Your task to perform on an android device: Search for "macbook" on ebay.com, select the first entry, add it to the cart, then select checkout. Image 0: 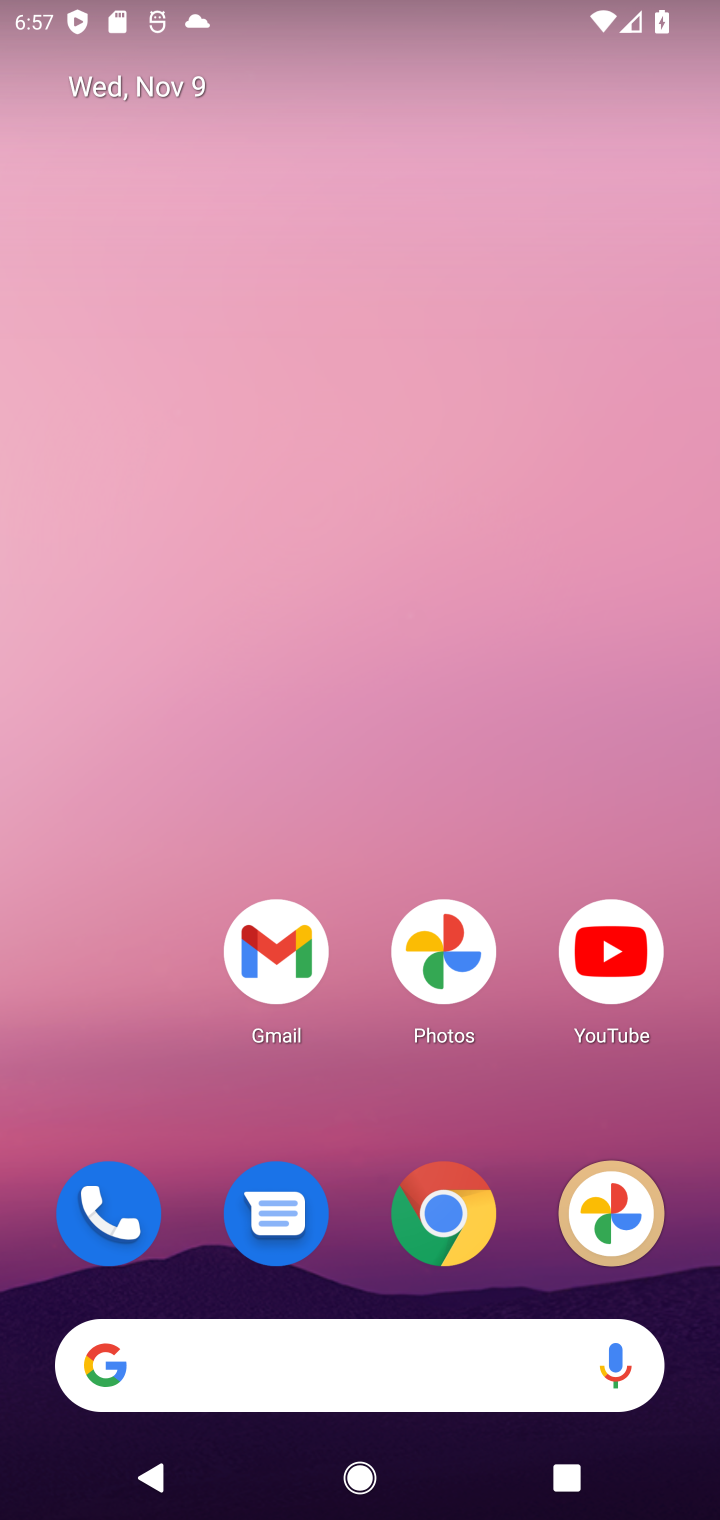
Step 0: click (450, 1225)
Your task to perform on an android device: Search for "macbook" on ebay.com, select the first entry, add it to the cart, then select checkout. Image 1: 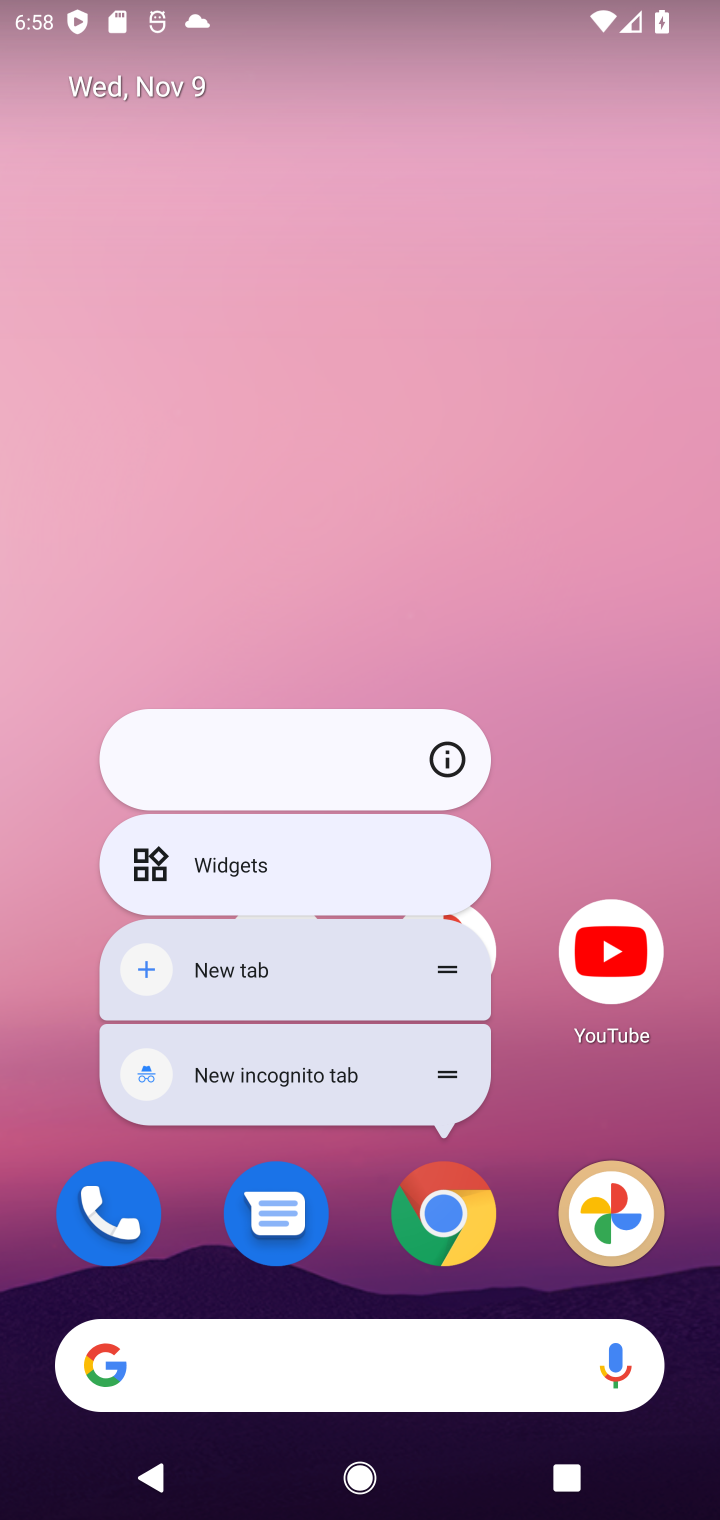
Step 1: click (452, 1225)
Your task to perform on an android device: Search for "macbook" on ebay.com, select the first entry, add it to the cart, then select checkout. Image 2: 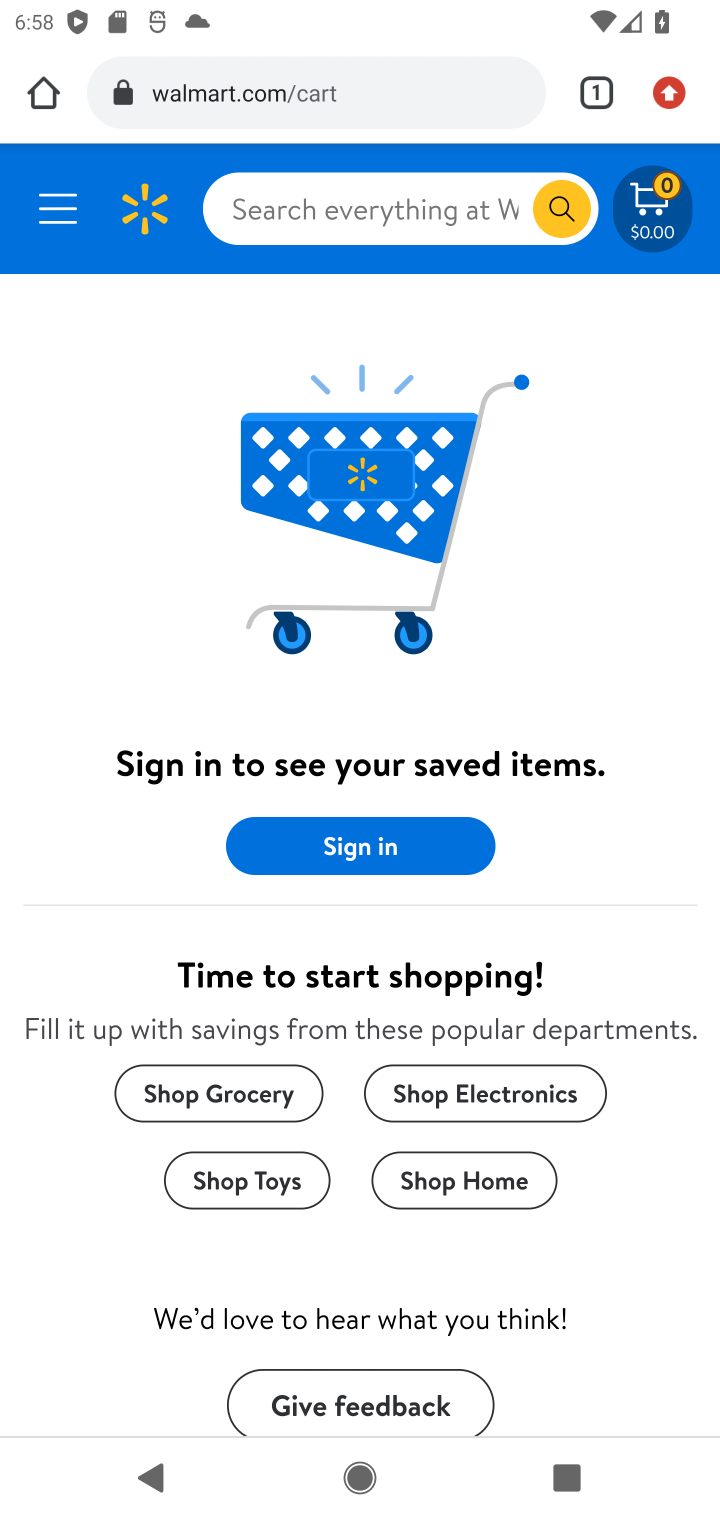
Step 2: click (287, 98)
Your task to perform on an android device: Search for "macbook" on ebay.com, select the first entry, add it to the cart, then select checkout. Image 3: 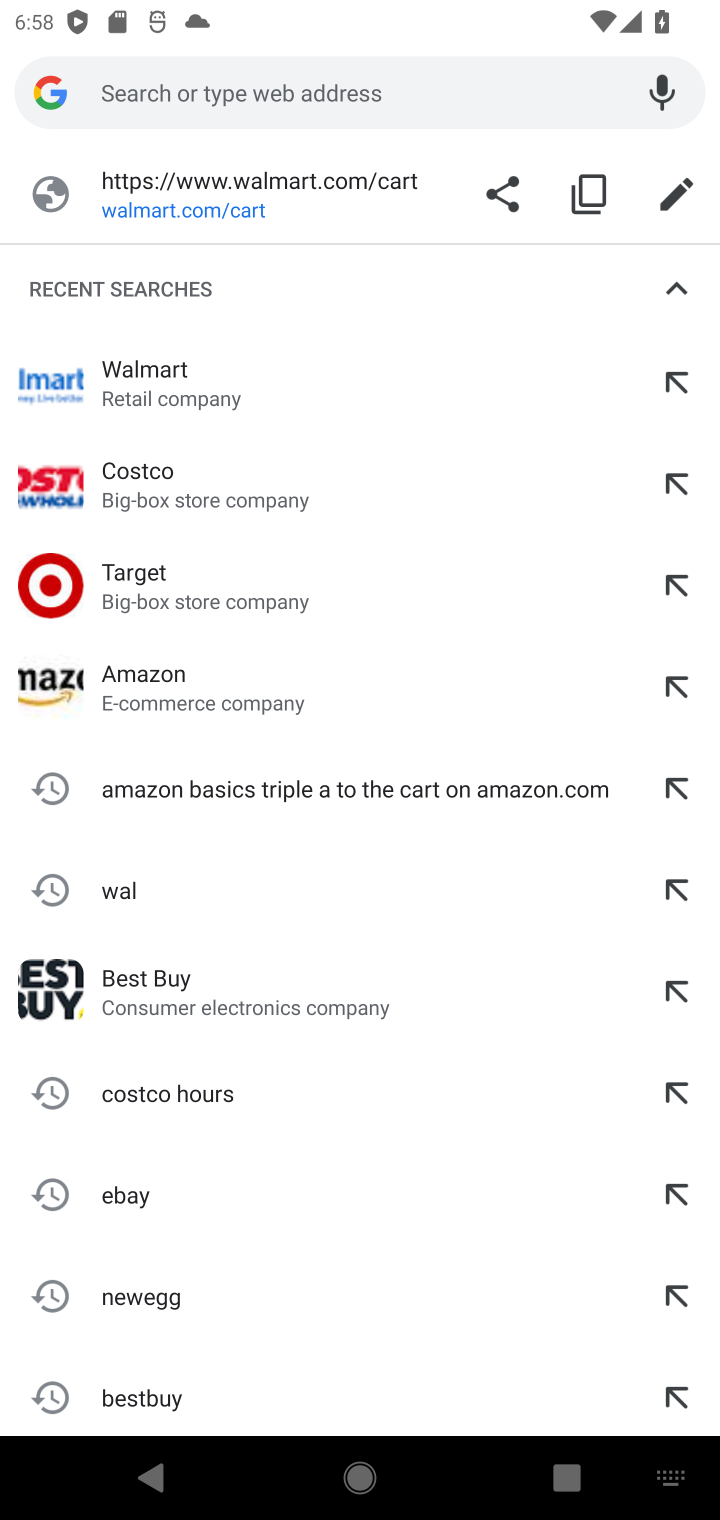
Step 3: type "ebay"
Your task to perform on an android device: Search for "macbook" on ebay.com, select the first entry, add it to the cart, then select checkout. Image 4: 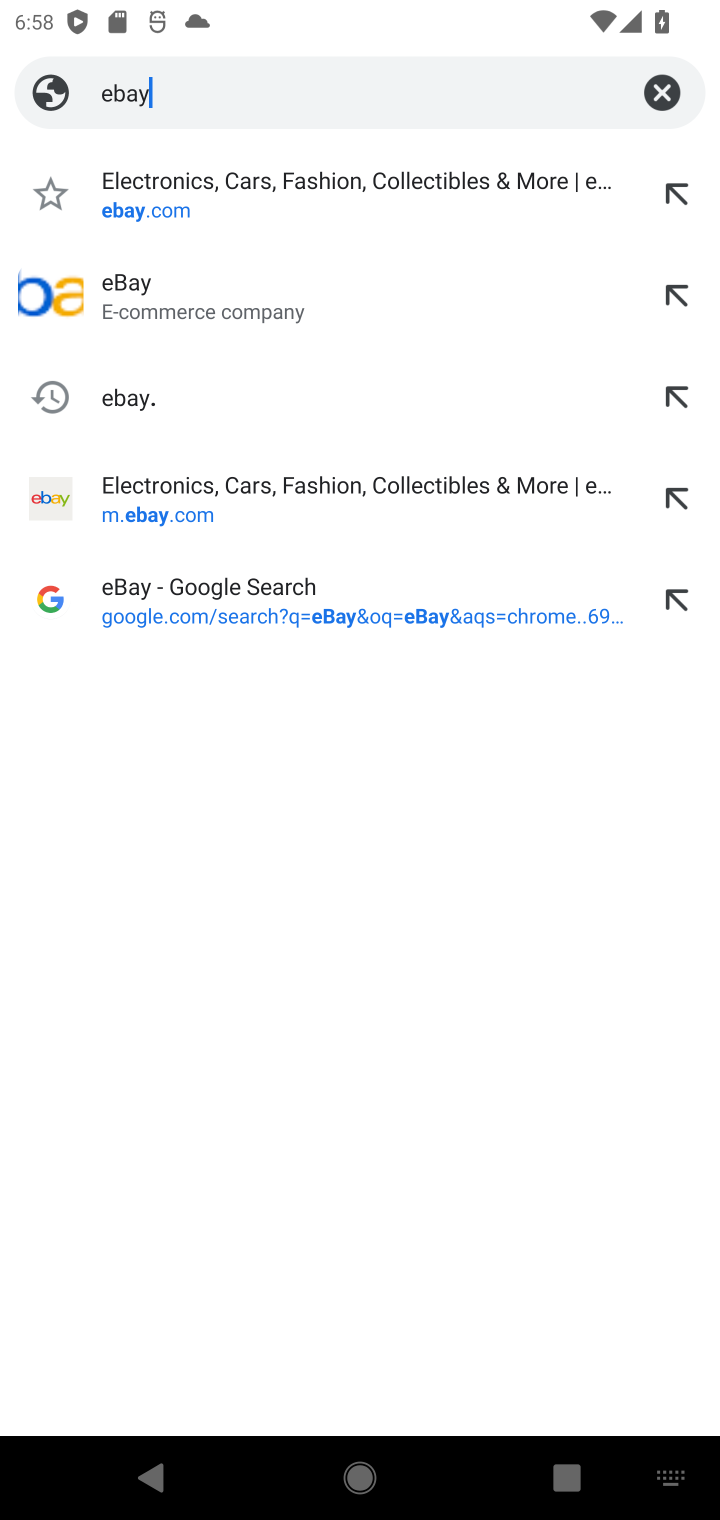
Step 4: click (127, 306)
Your task to perform on an android device: Search for "macbook" on ebay.com, select the first entry, add it to the cart, then select checkout. Image 5: 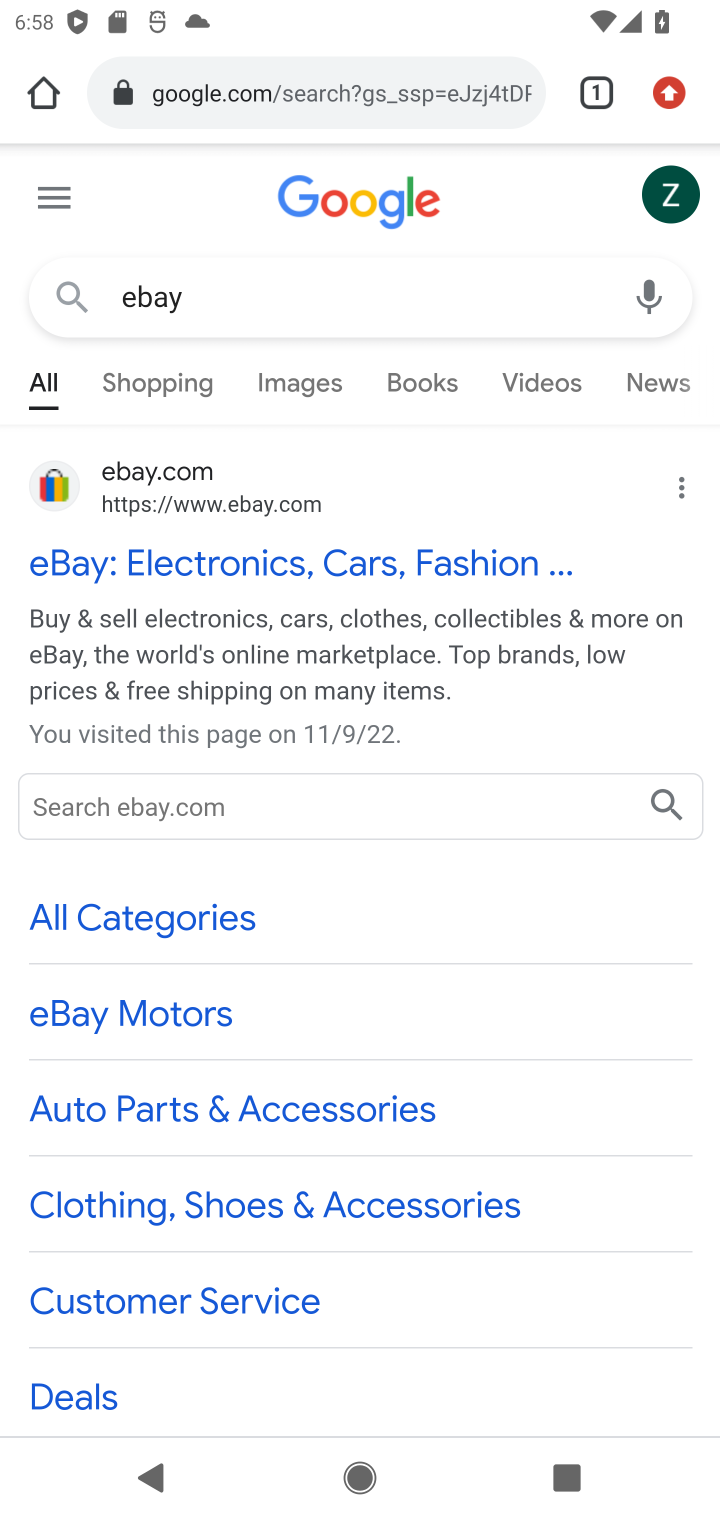
Step 5: click (202, 566)
Your task to perform on an android device: Search for "macbook" on ebay.com, select the first entry, add it to the cart, then select checkout. Image 6: 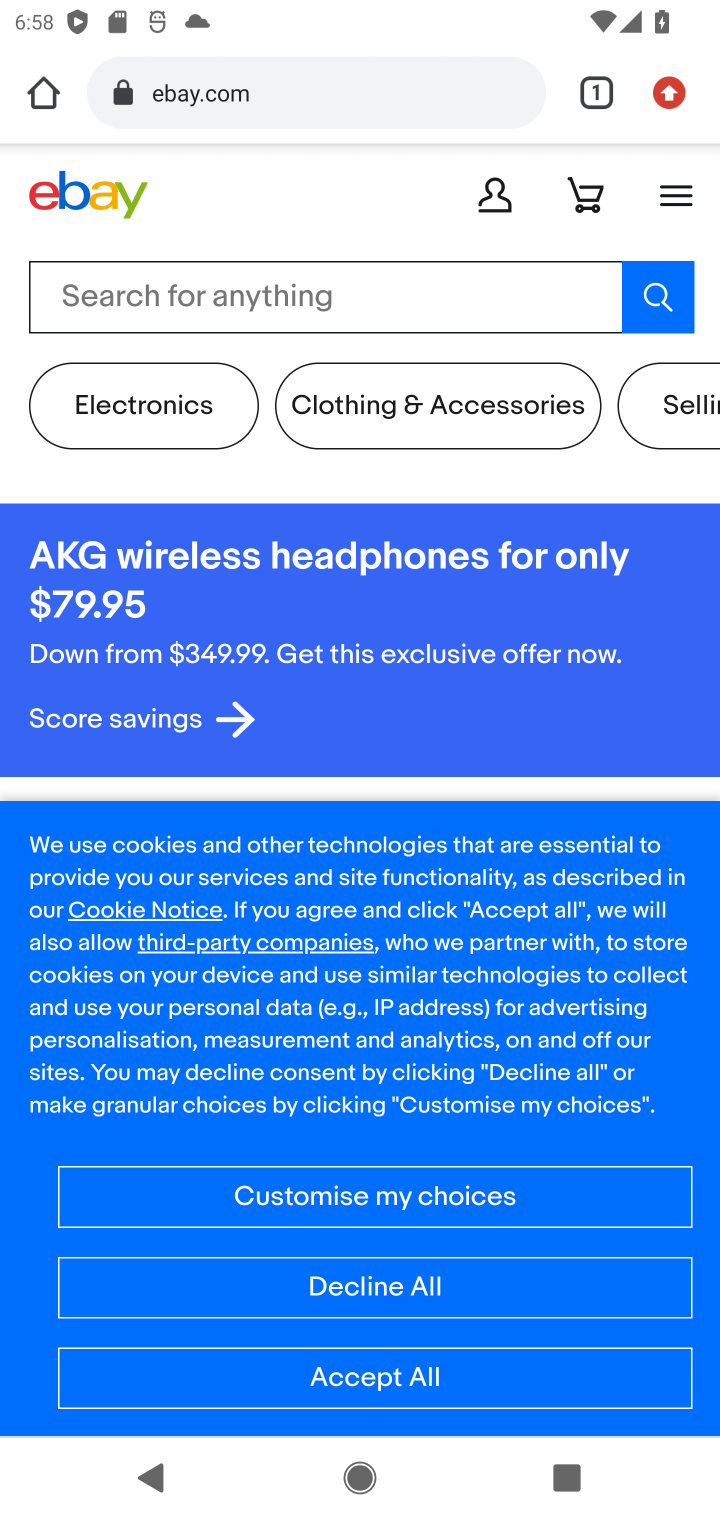
Step 6: click (234, 295)
Your task to perform on an android device: Search for "macbook" on ebay.com, select the first entry, add it to the cart, then select checkout. Image 7: 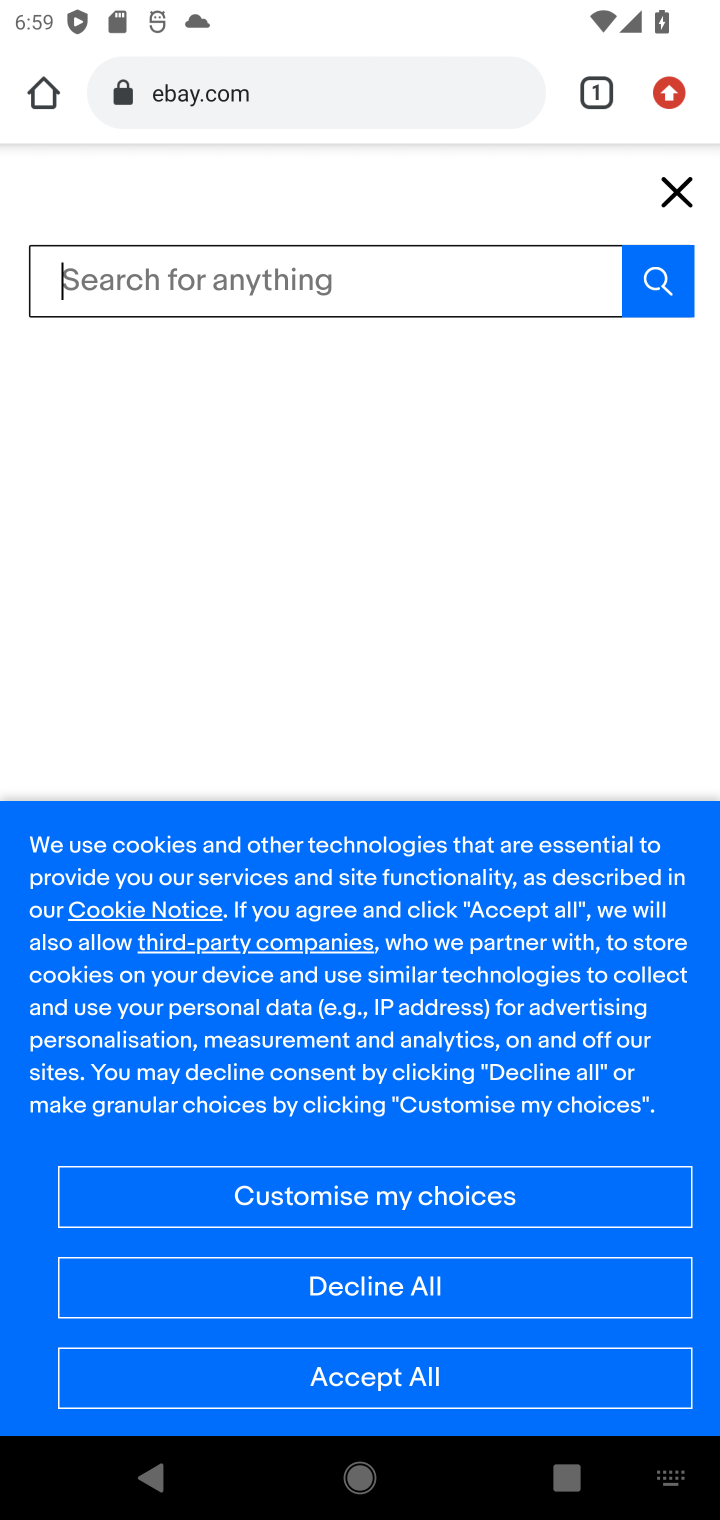
Step 7: type "macbook"
Your task to perform on an android device: Search for "macbook" on ebay.com, select the first entry, add it to the cart, then select checkout. Image 8: 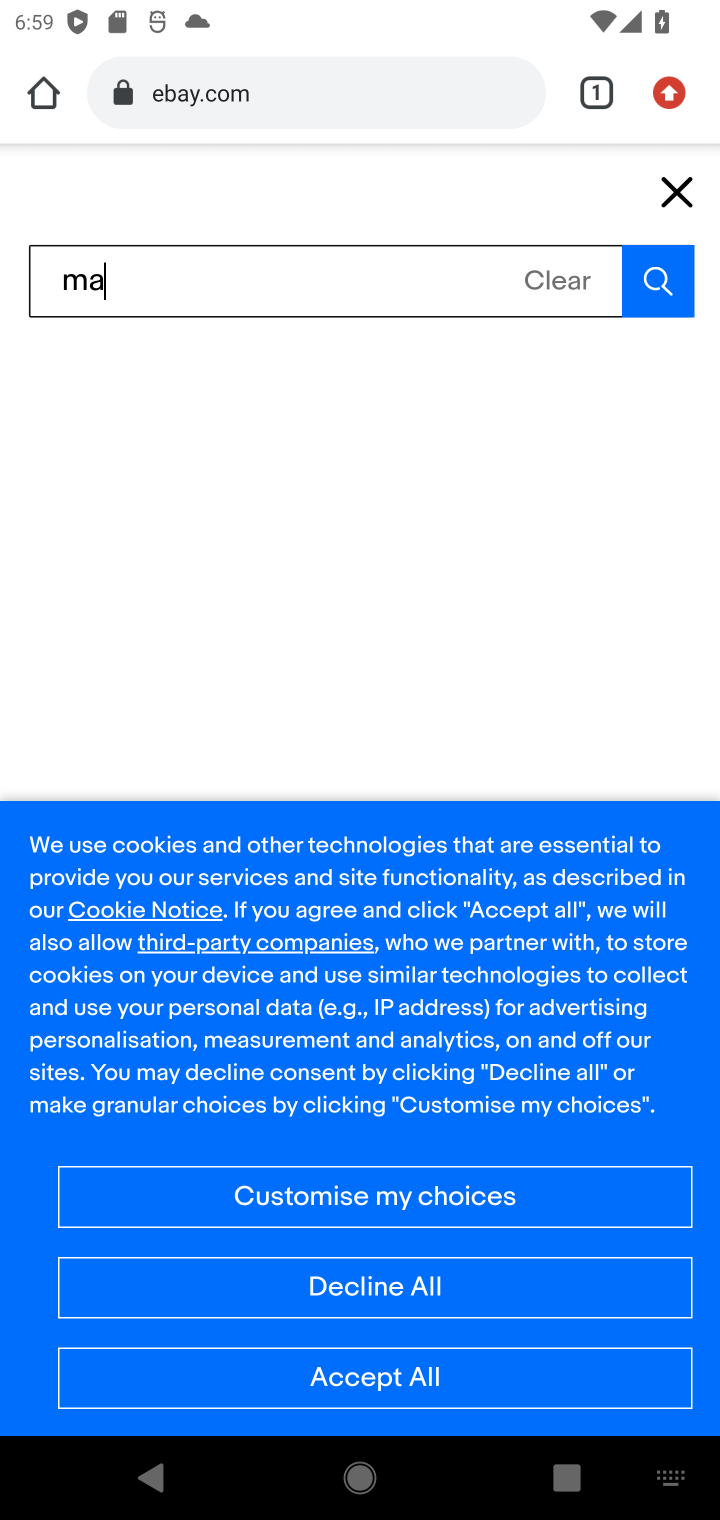
Step 8: type ""
Your task to perform on an android device: Search for "macbook" on ebay.com, select the first entry, add it to the cart, then select checkout. Image 9: 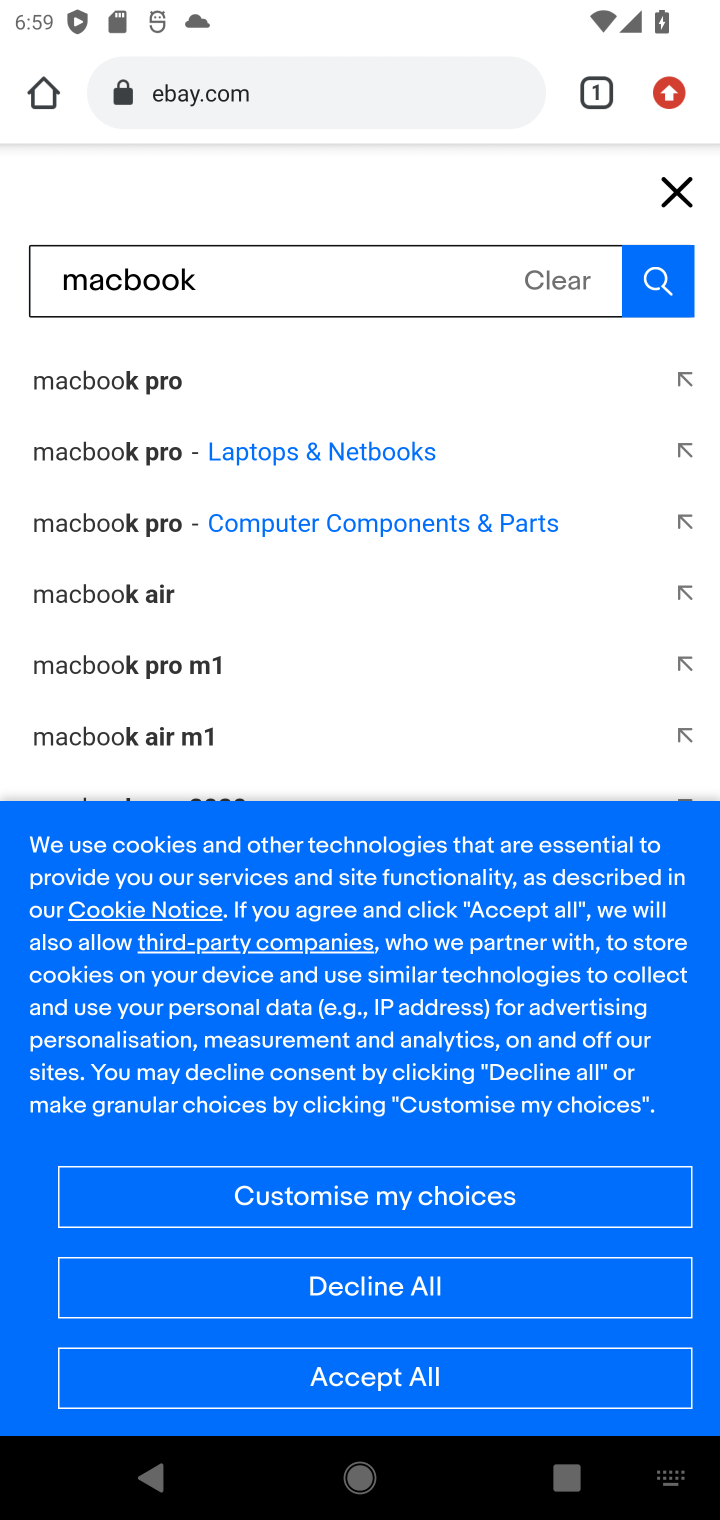
Step 9: click (351, 1286)
Your task to perform on an android device: Search for "macbook" on ebay.com, select the first entry, add it to the cart, then select checkout. Image 10: 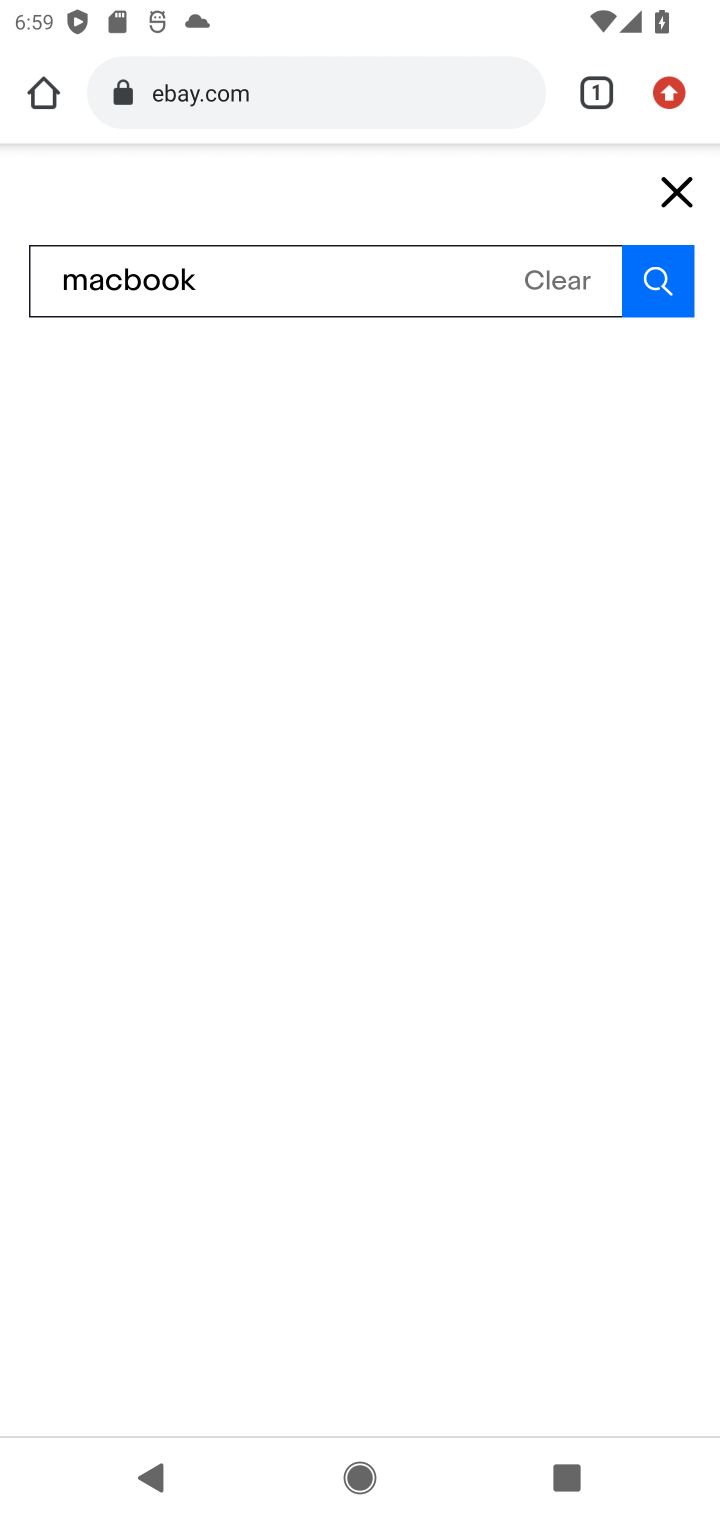
Step 10: click (648, 258)
Your task to perform on an android device: Search for "macbook" on ebay.com, select the first entry, add it to the cart, then select checkout. Image 11: 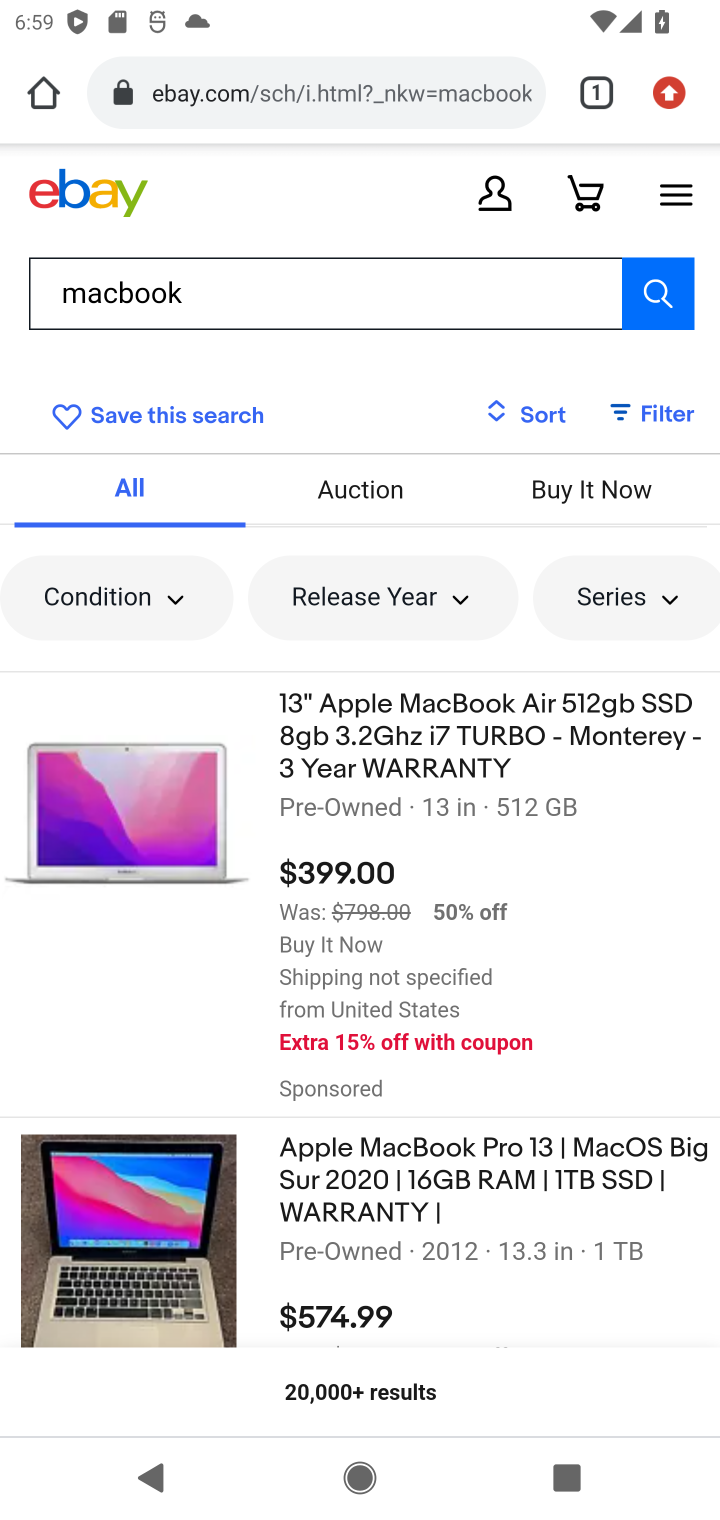
Step 11: click (431, 1158)
Your task to perform on an android device: Search for "macbook" on ebay.com, select the first entry, add it to the cart, then select checkout. Image 12: 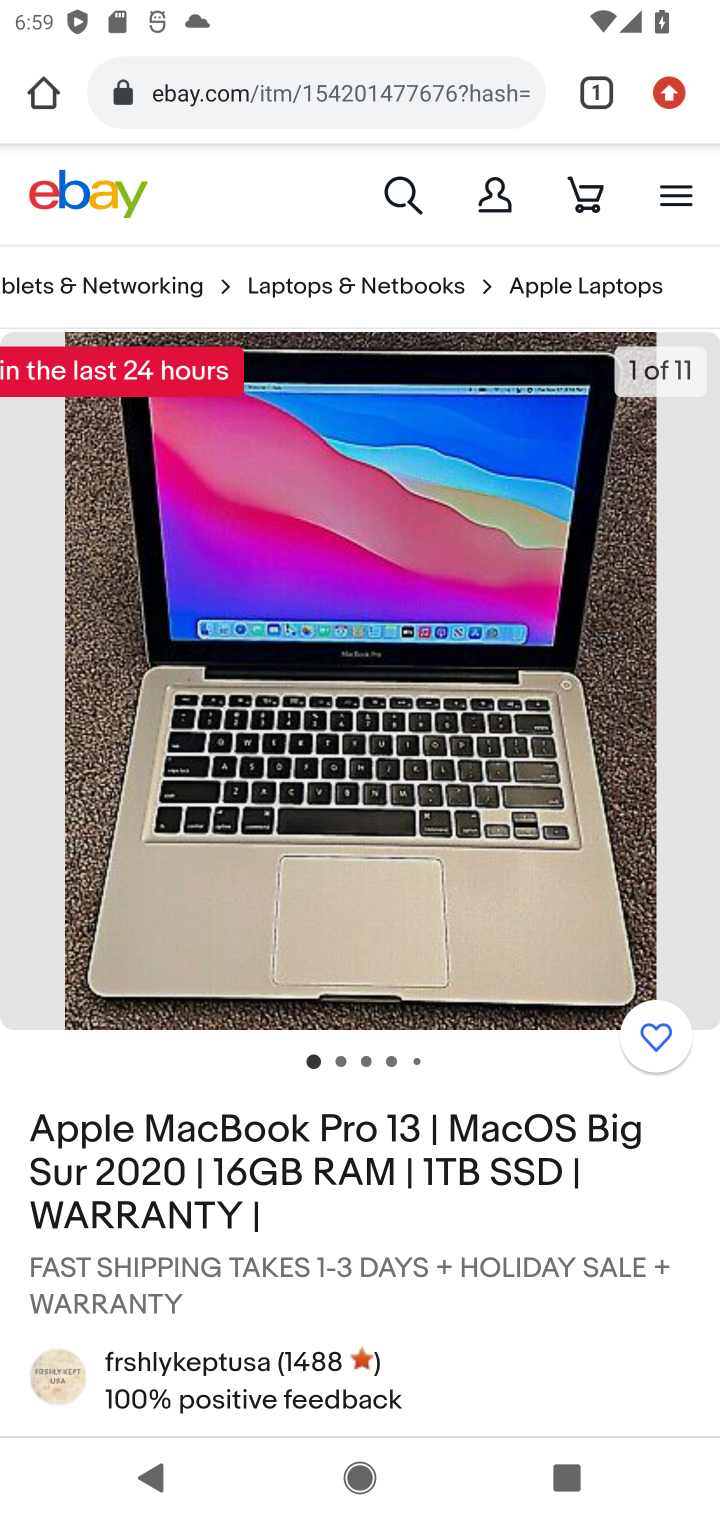
Step 12: drag from (337, 1227) to (434, 348)
Your task to perform on an android device: Search for "macbook" on ebay.com, select the first entry, add it to the cart, then select checkout. Image 13: 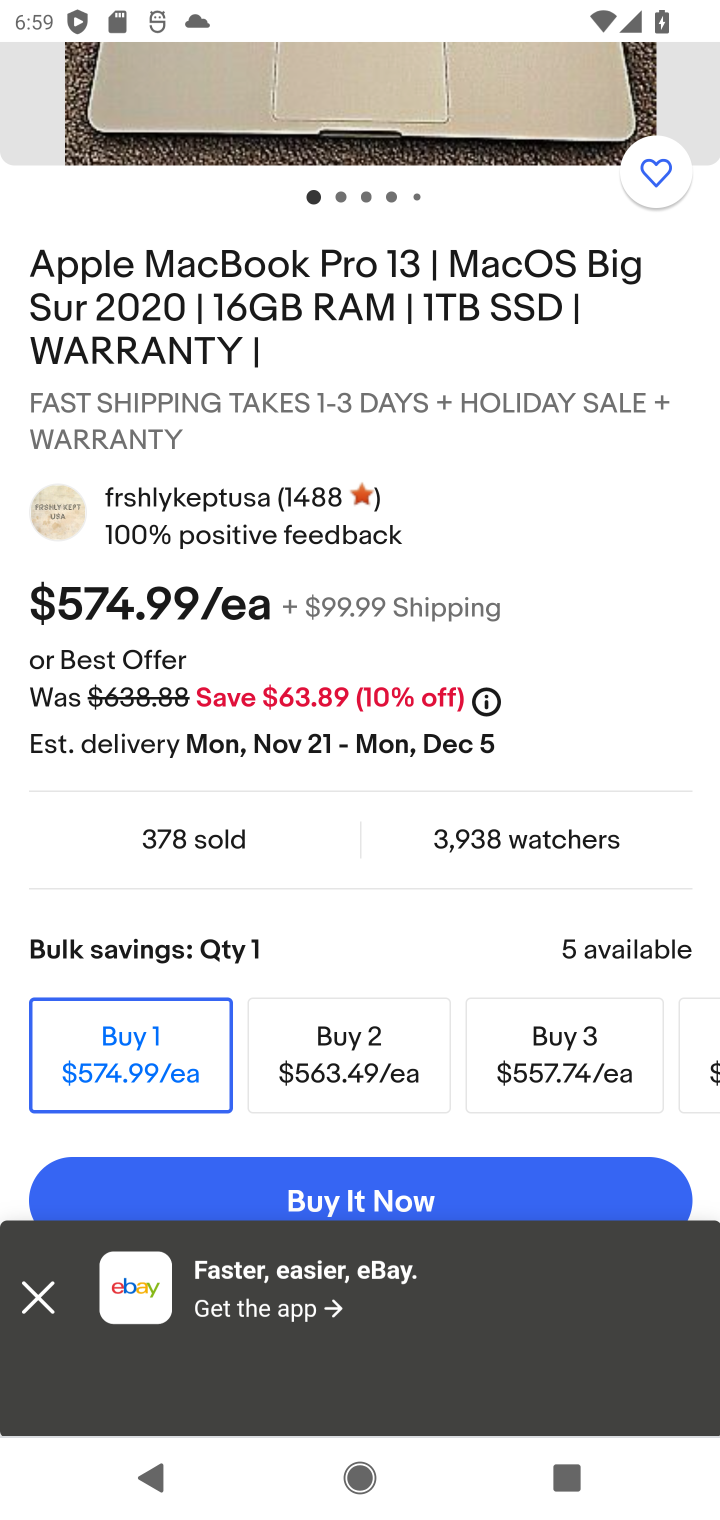
Step 13: click (34, 1287)
Your task to perform on an android device: Search for "macbook" on ebay.com, select the first entry, add it to the cart, then select checkout. Image 14: 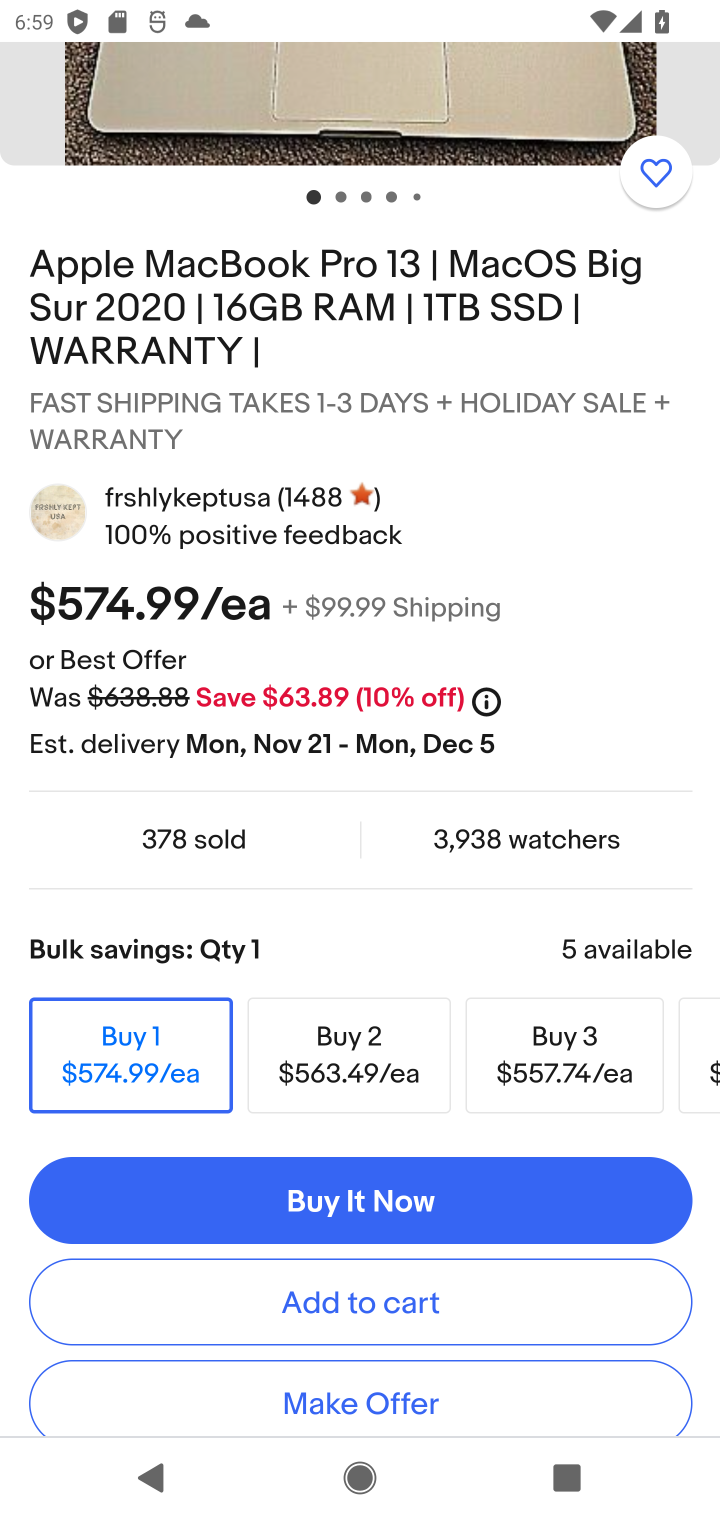
Step 14: click (366, 1314)
Your task to perform on an android device: Search for "macbook" on ebay.com, select the first entry, add it to the cart, then select checkout. Image 15: 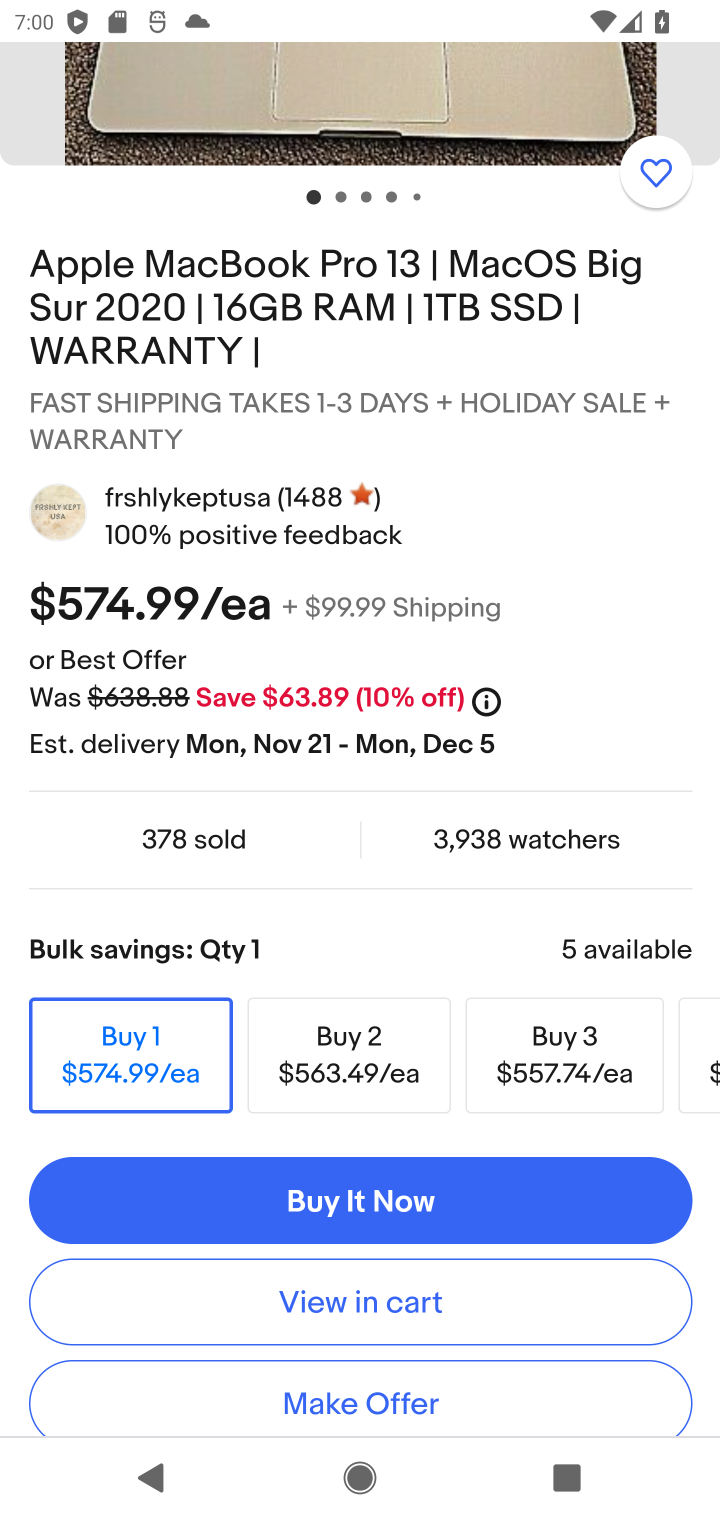
Step 15: click (364, 1314)
Your task to perform on an android device: Search for "macbook" on ebay.com, select the first entry, add it to the cart, then select checkout. Image 16: 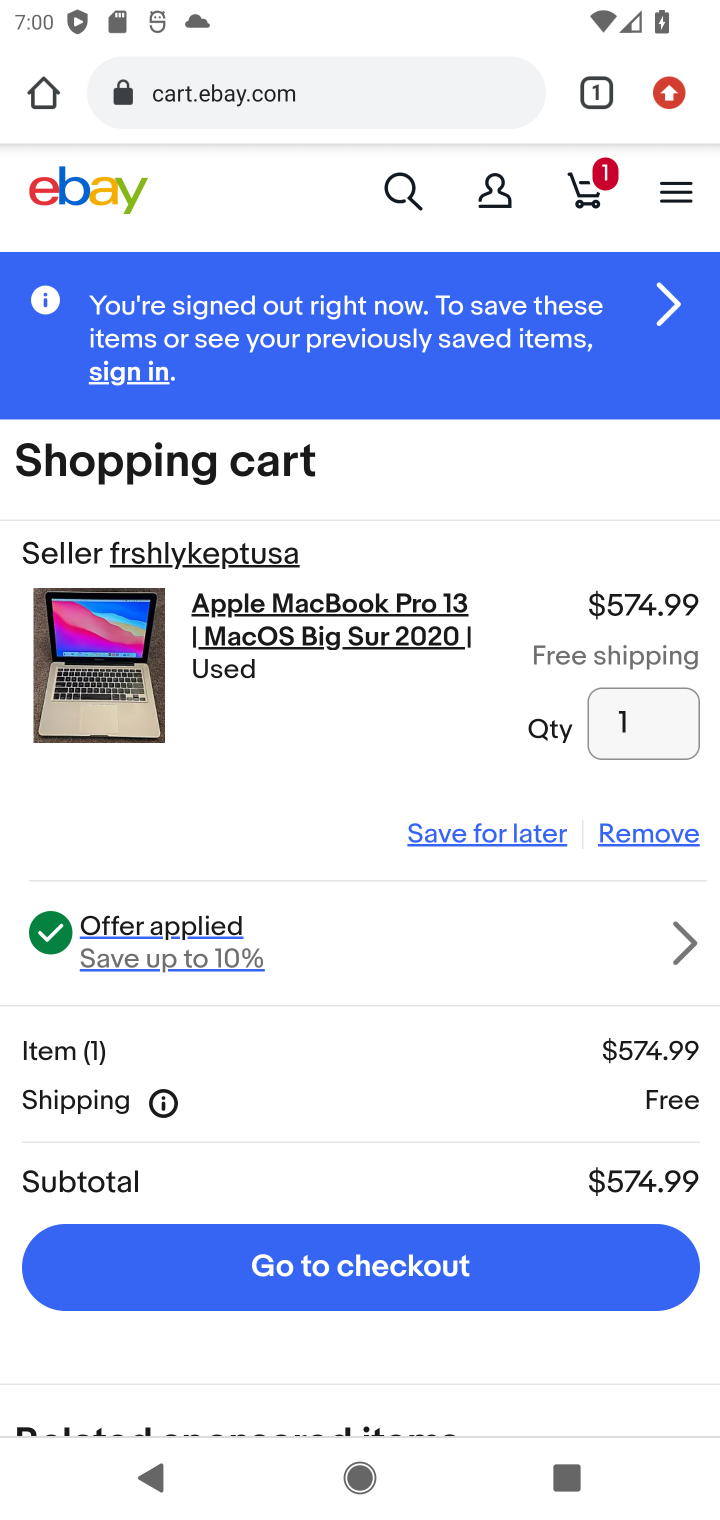
Step 16: click (379, 1273)
Your task to perform on an android device: Search for "macbook" on ebay.com, select the first entry, add it to the cart, then select checkout. Image 17: 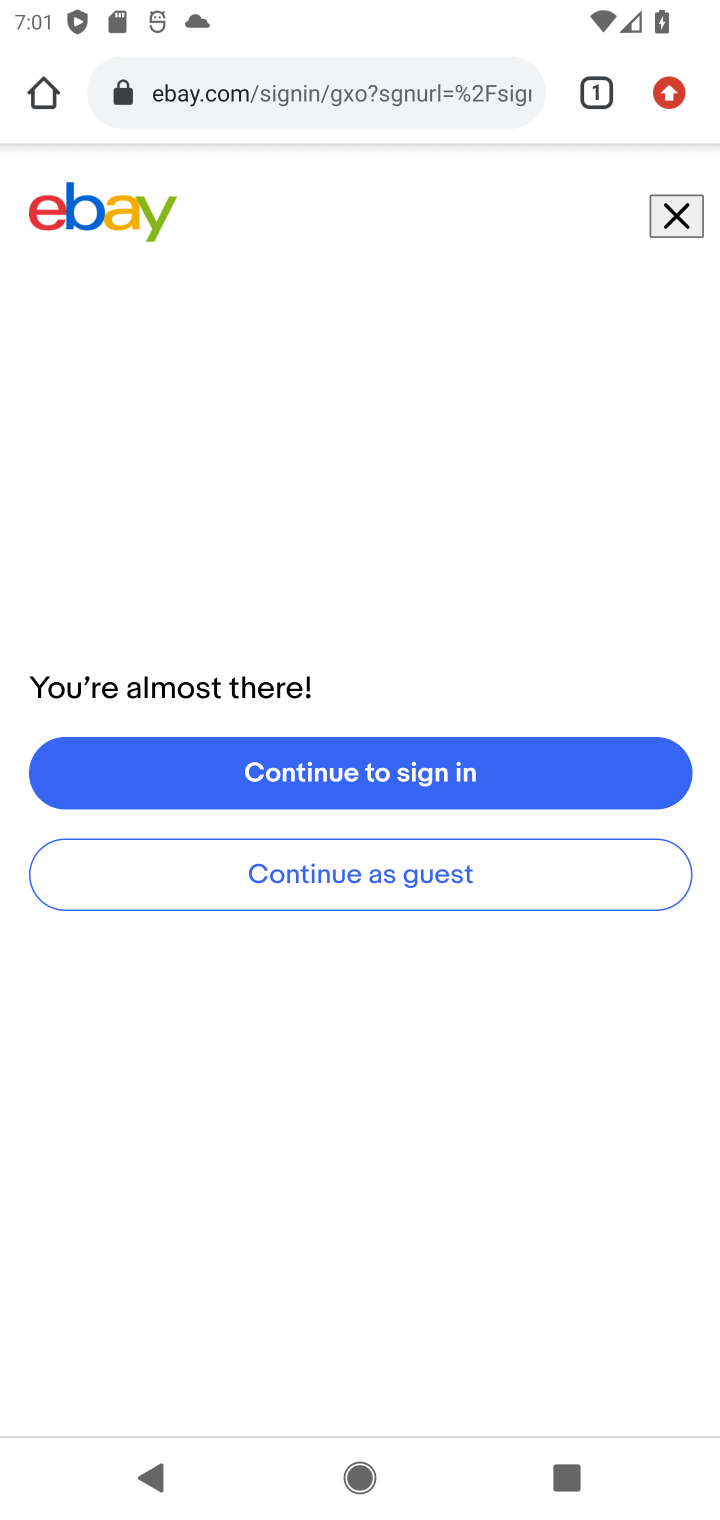
Step 17: task complete